Your task to perform on an android device: turn on sleep mode Image 0: 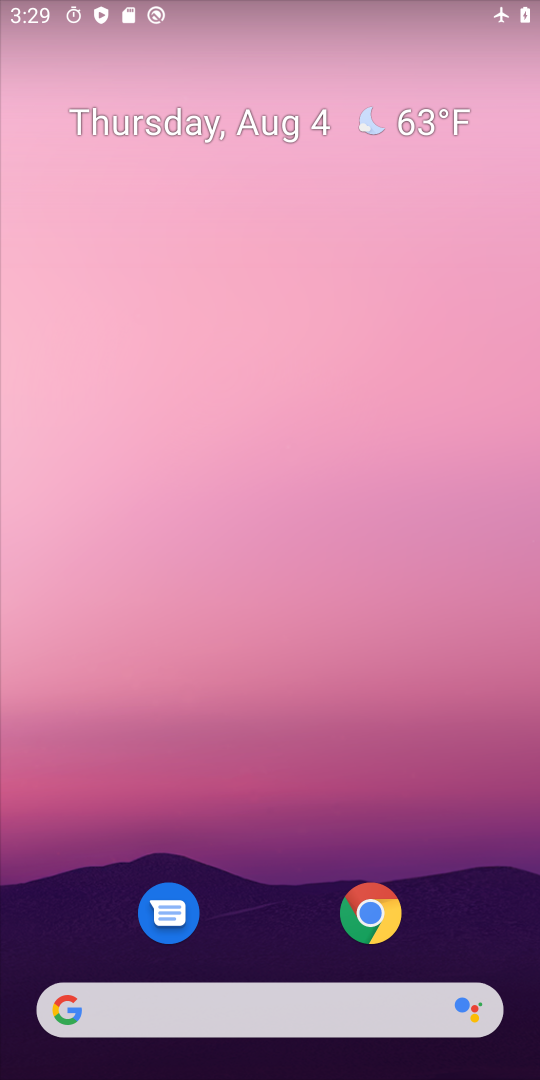
Step 0: drag from (271, 813) to (330, 60)
Your task to perform on an android device: turn on sleep mode Image 1: 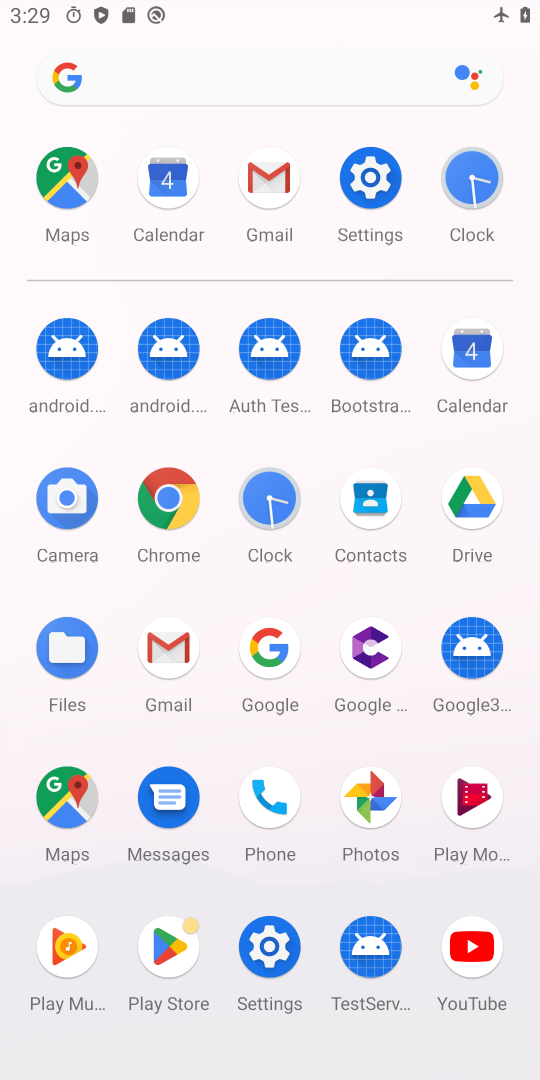
Step 1: click (377, 188)
Your task to perform on an android device: turn on sleep mode Image 2: 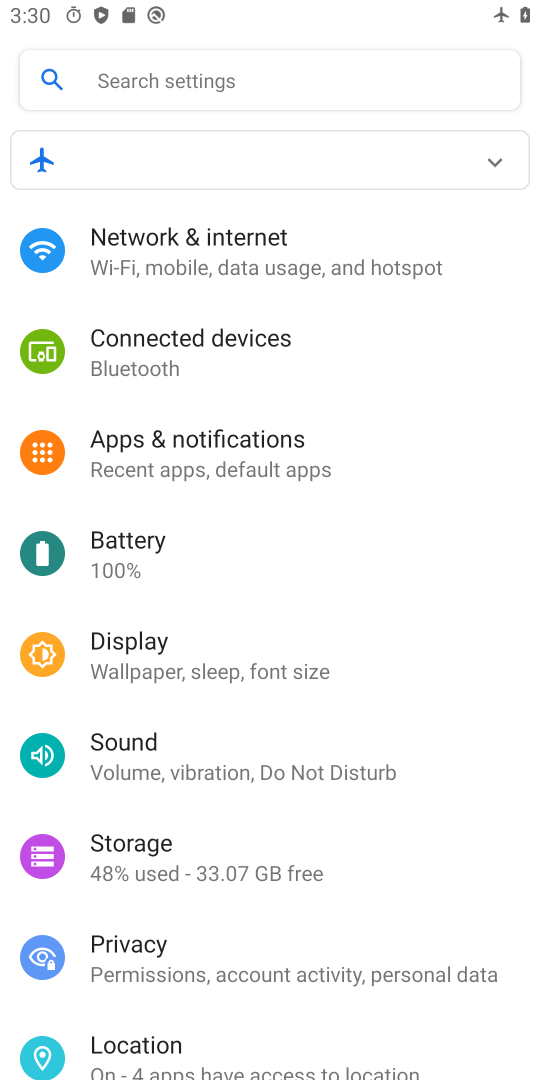
Step 2: click (256, 455)
Your task to perform on an android device: turn on sleep mode Image 3: 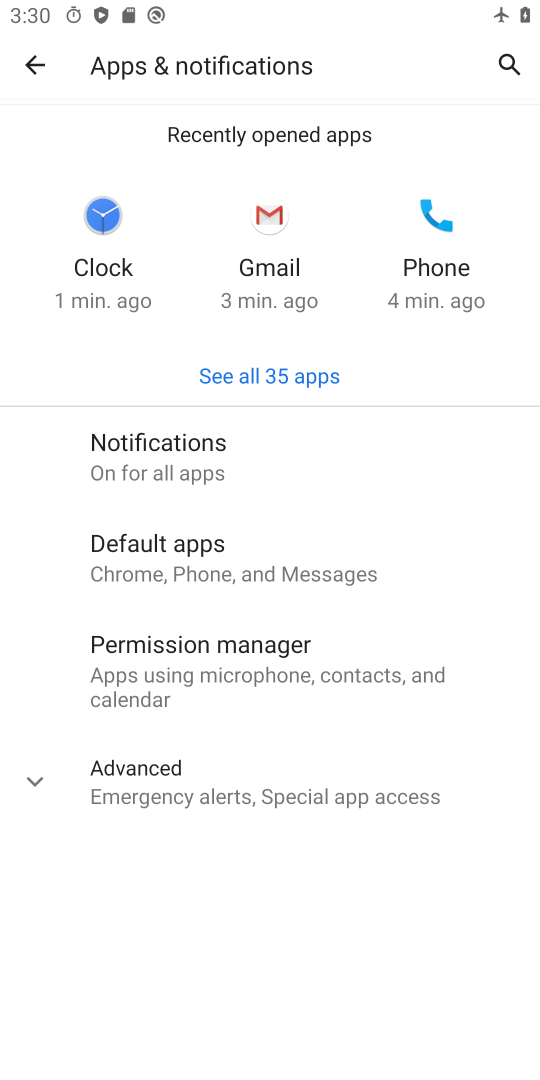
Step 3: task complete